Your task to perform on an android device: turn off location Image 0: 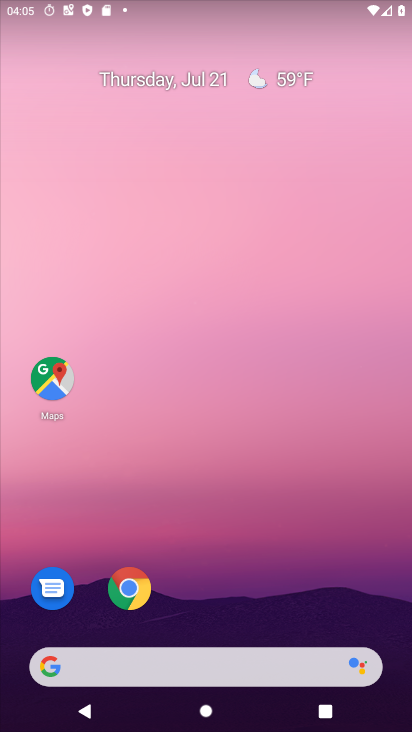
Step 0: drag from (217, 595) to (217, 135)
Your task to perform on an android device: turn off location Image 1: 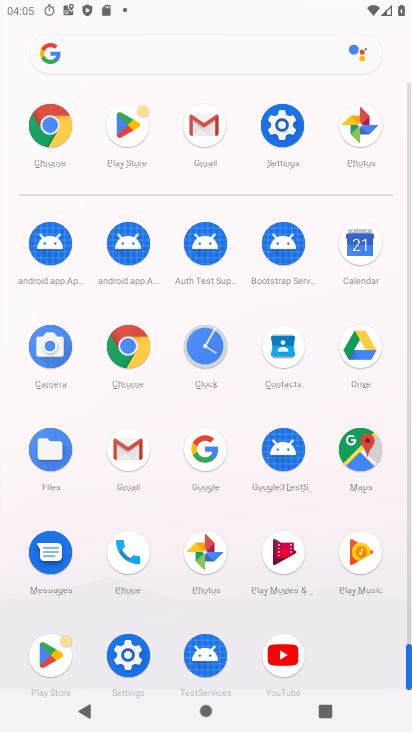
Step 1: click (125, 648)
Your task to perform on an android device: turn off location Image 2: 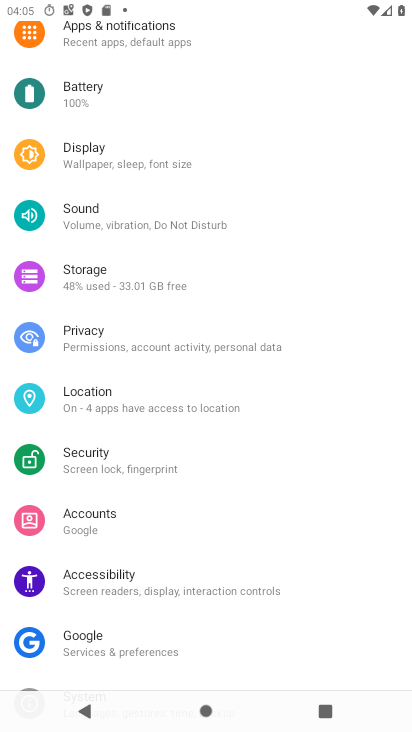
Step 2: click (122, 410)
Your task to perform on an android device: turn off location Image 3: 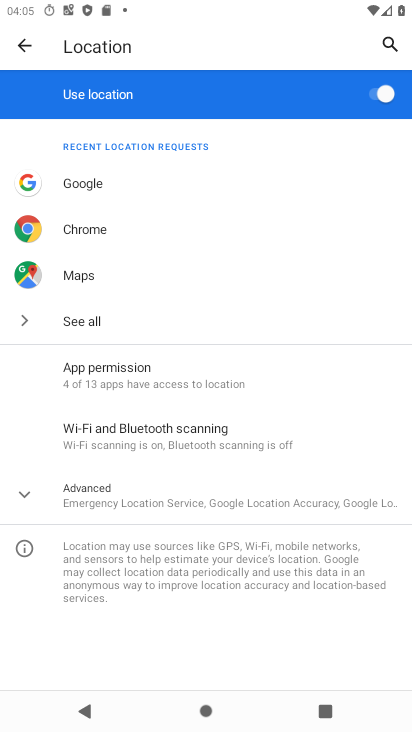
Step 3: click (368, 97)
Your task to perform on an android device: turn off location Image 4: 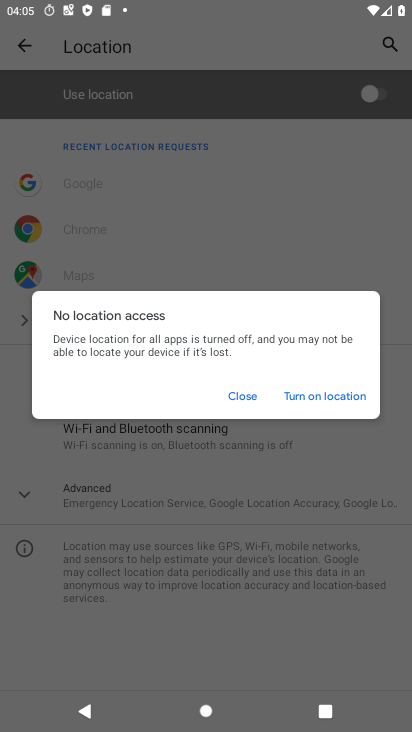
Step 4: task complete